Your task to perform on an android device: check storage Image 0: 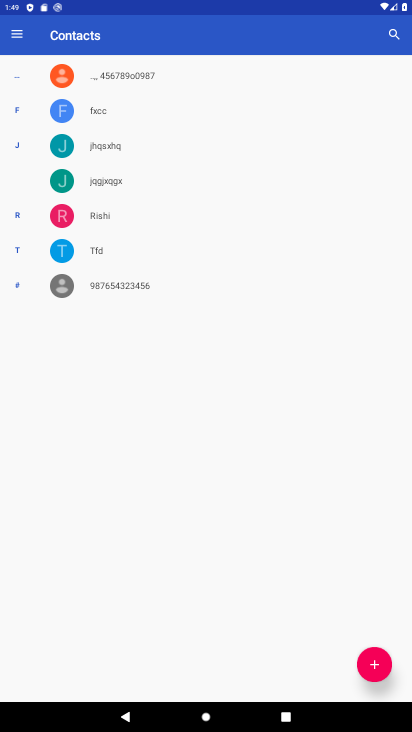
Step 0: press home button
Your task to perform on an android device: check storage Image 1: 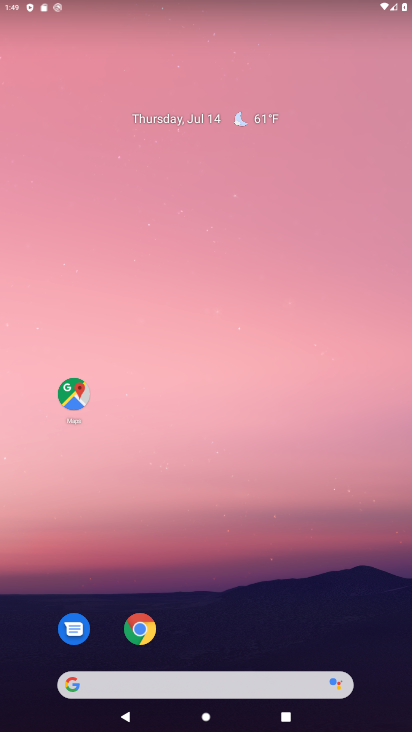
Step 1: drag from (336, 613) to (268, 1)
Your task to perform on an android device: check storage Image 2: 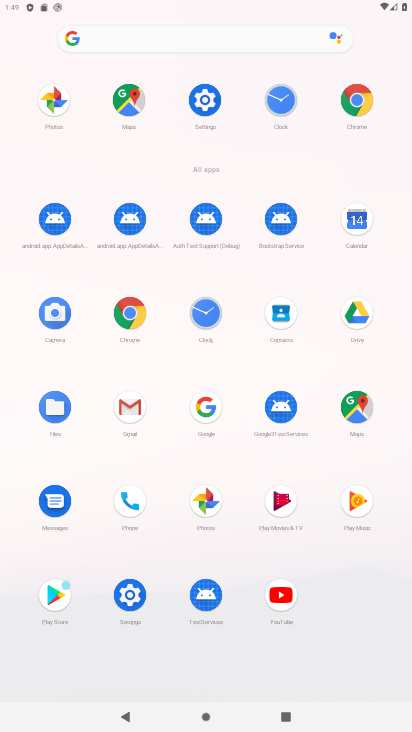
Step 2: click (224, 141)
Your task to perform on an android device: check storage Image 3: 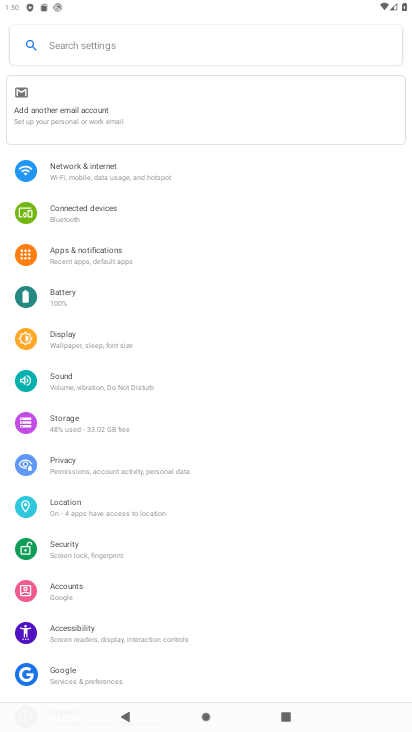
Step 3: click (121, 424)
Your task to perform on an android device: check storage Image 4: 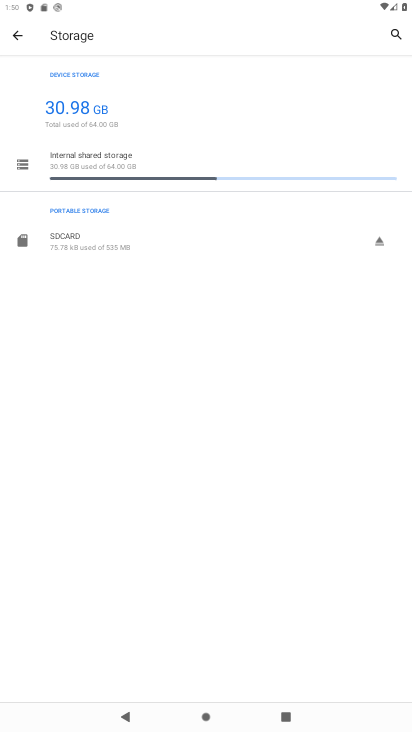
Step 4: click (121, 424)
Your task to perform on an android device: check storage Image 5: 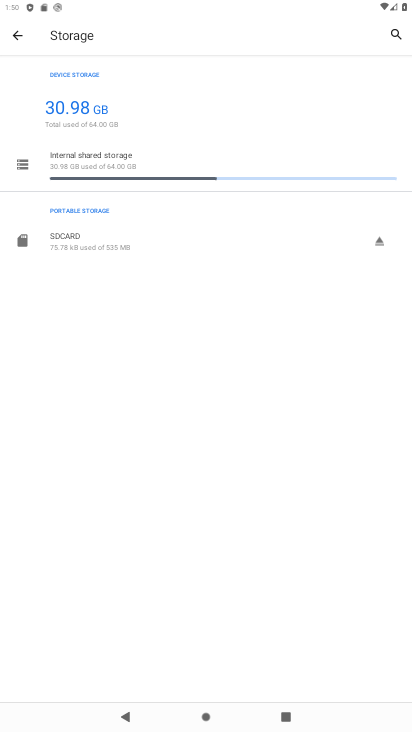
Step 5: task complete